Your task to perform on an android device: open wifi settings Image 0: 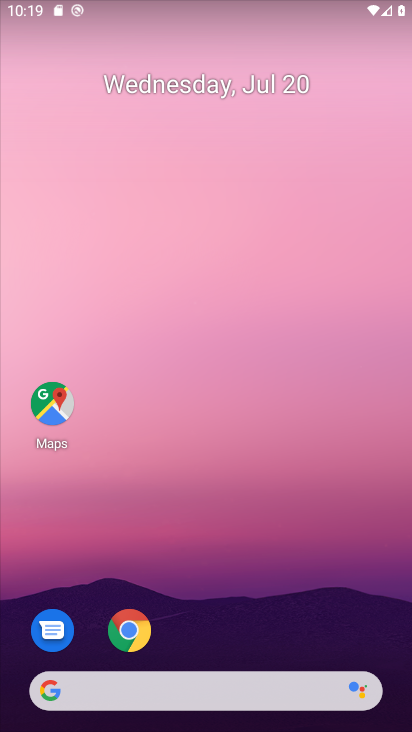
Step 0: drag from (261, 526) to (204, 159)
Your task to perform on an android device: open wifi settings Image 1: 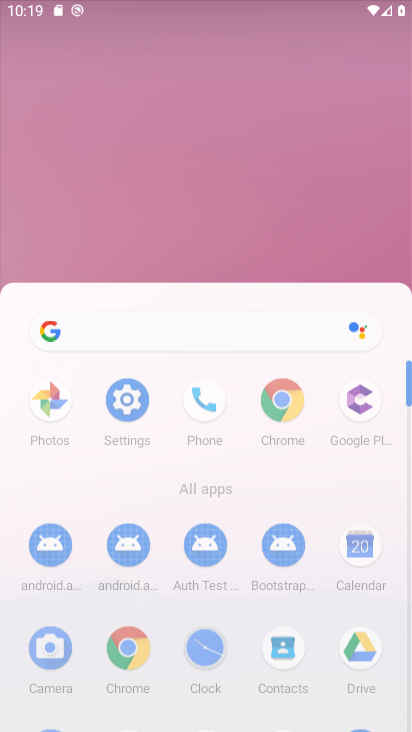
Step 1: drag from (191, 604) to (191, 184)
Your task to perform on an android device: open wifi settings Image 2: 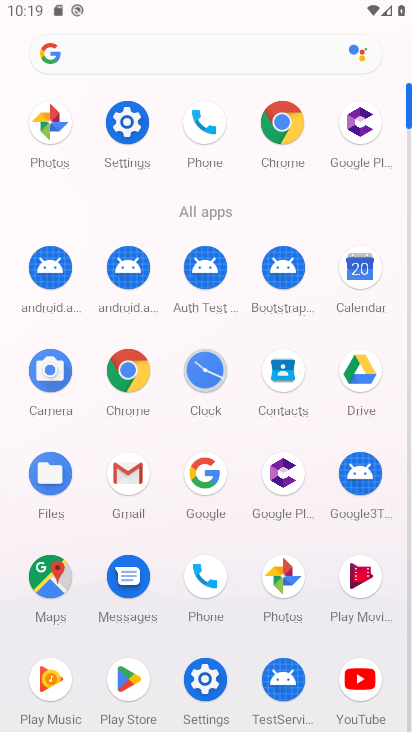
Step 2: drag from (211, 337) to (171, 15)
Your task to perform on an android device: open wifi settings Image 3: 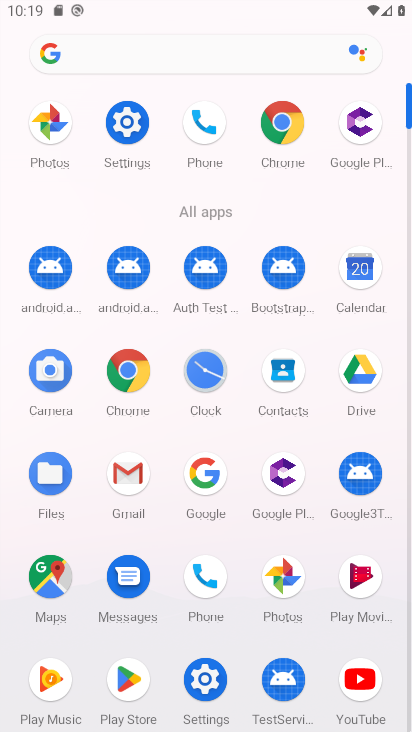
Step 3: click (139, 129)
Your task to perform on an android device: open wifi settings Image 4: 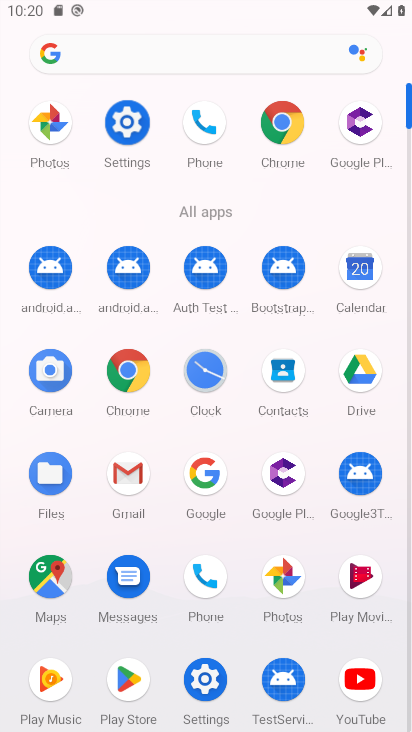
Step 4: click (138, 128)
Your task to perform on an android device: open wifi settings Image 5: 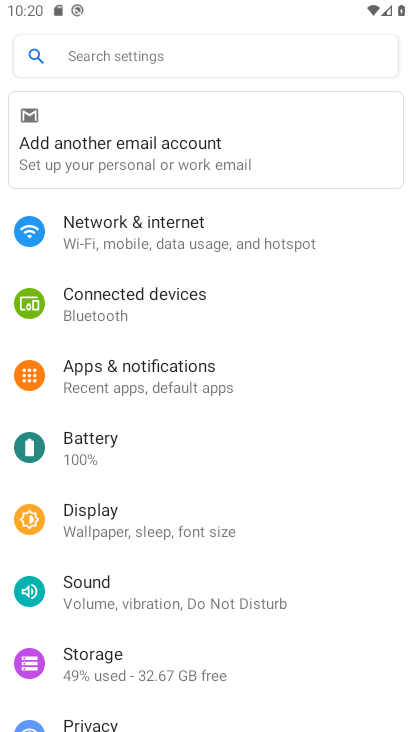
Step 5: click (148, 233)
Your task to perform on an android device: open wifi settings Image 6: 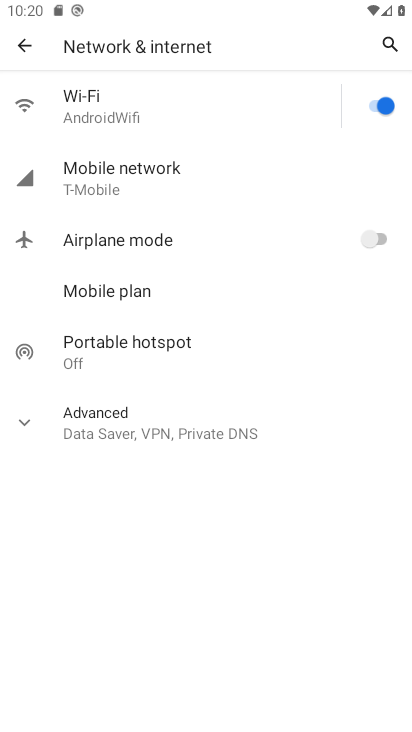
Step 6: click (212, 237)
Your task to perform on an android device: open wifi settings Image 7: 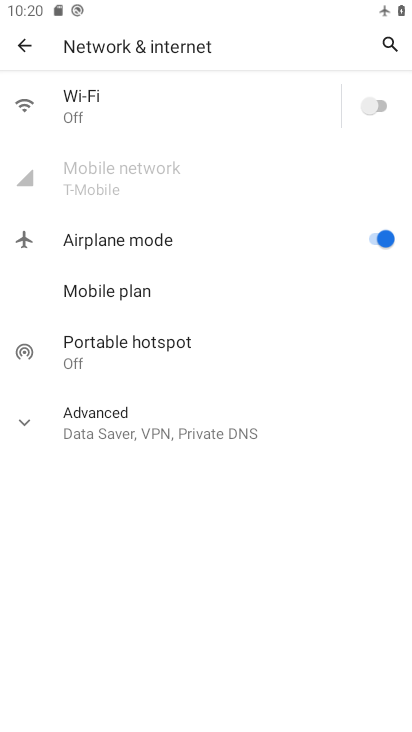
Step 7: task complete